Your task to perform on an android device: toggle improve location accuracy Image 0: 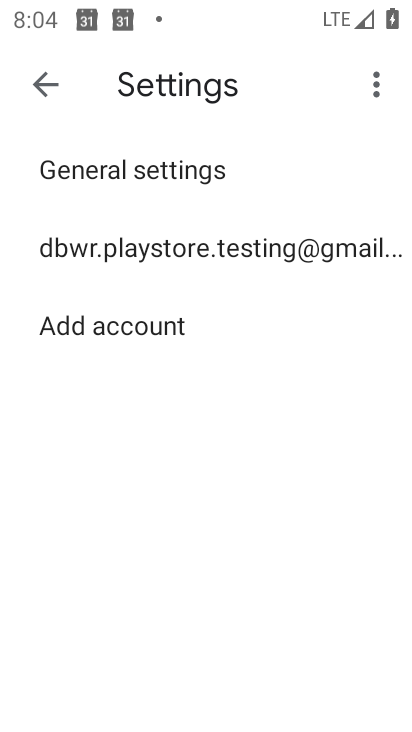
Step 0: press home button
Your task to perform on an android device: toggle improve location accuracy Image 1: 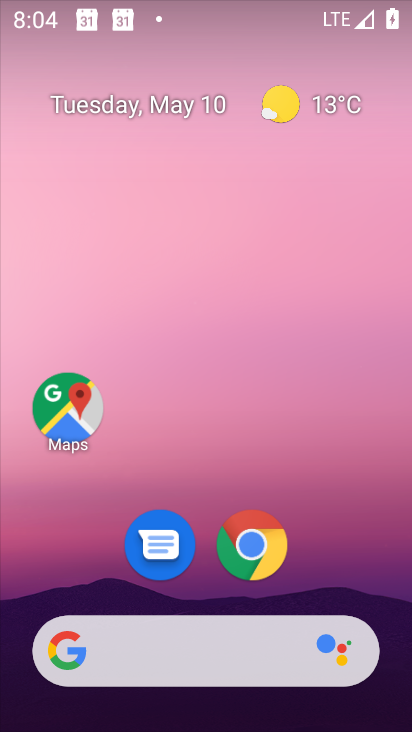
Step 1: drag from (207, 587) to (239, 111)
Your task to perform on an android device: toggle improve location accuracy Image 2: 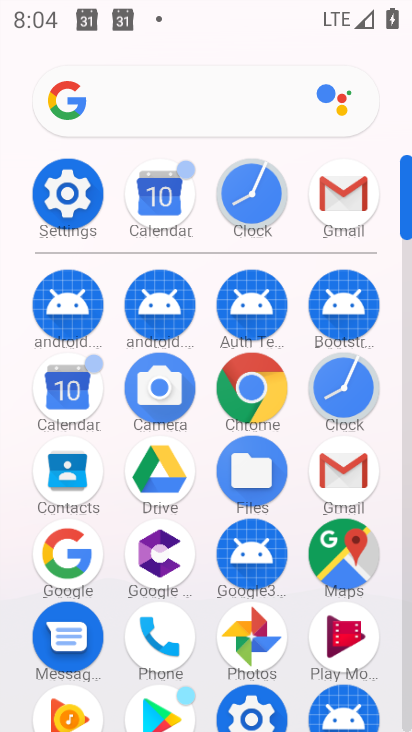
Step 2: click (64, 188)
Your task to perform on an android device: toggle improve location accuracy Image 3: 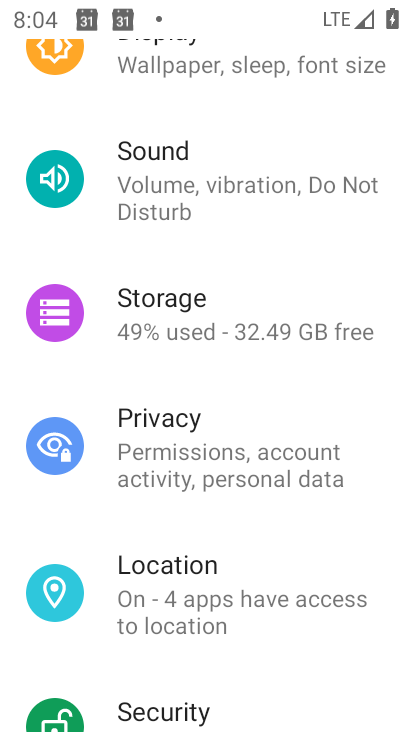
Step 3: click (225, 578)
Your task to perform on an android device: toggle improve location accuracy Image 4: 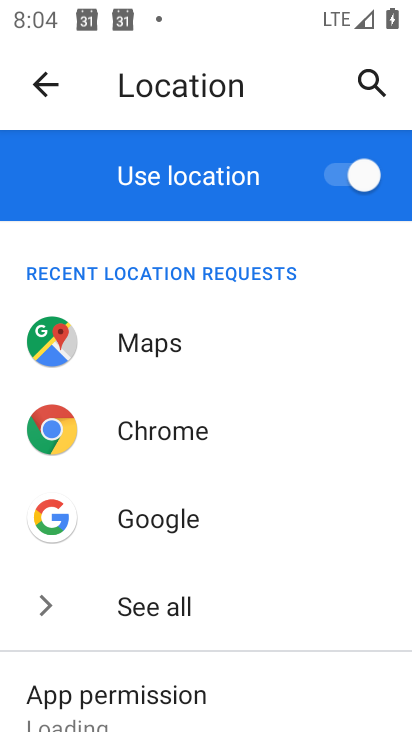
Step 4: drag from (192, 665) to (221, 216)
Your task to perform on an android device: toggle improve location accuracy Image 5: 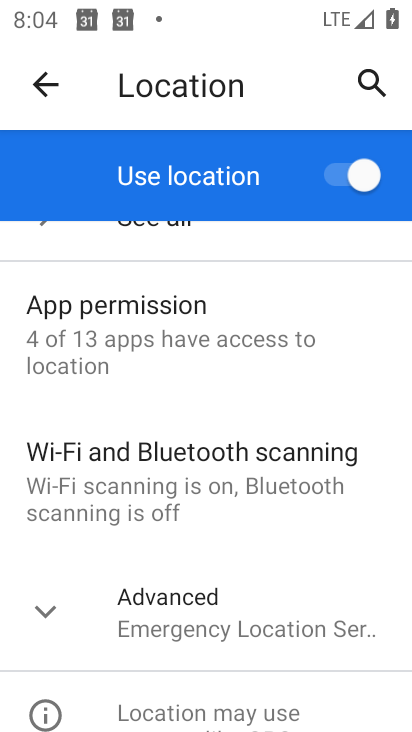
Step 5: click (46, 605)
Your task to perform on an android device: toggle improve location accuracy Image 6: 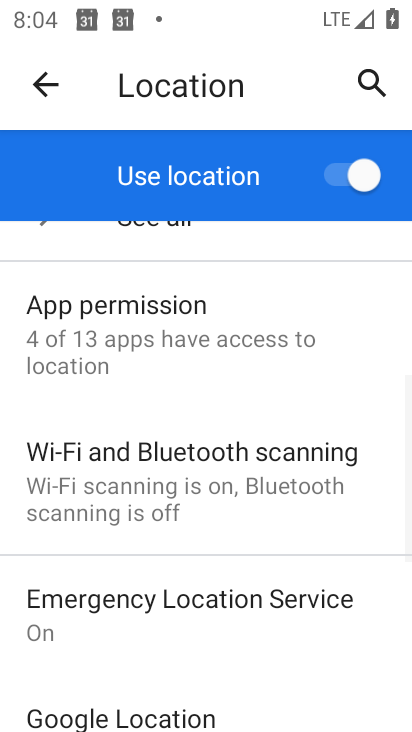
Step 6: drag from (155, 635) to (196, 183)
Your task to perform on an android device: toggle improve location accuracy Image 7: 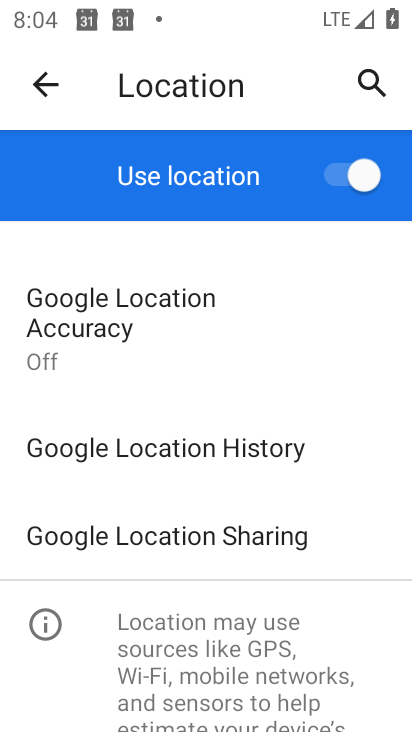
Step 7: click (144, 323)
Your task to perform on an android device: toggle improve location accuracy Image 8: 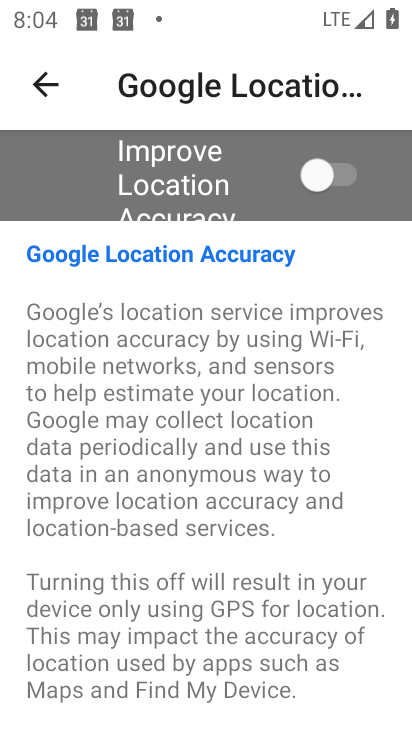
Step 8: click (340, 175)
Your task to perform on an android device: toggle improve location accuracy Image 9: 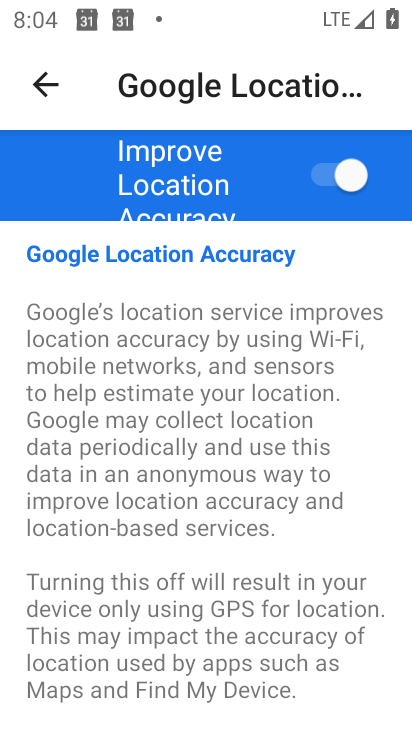
Step 9: task complete